Your task to perform on an android device: toggle notifications settings in the gmail app Image 0: 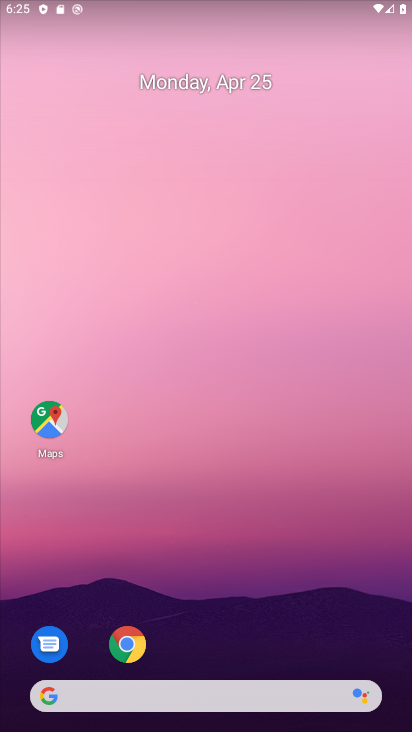
Step 0: drag from (198, 593) to (197, 41)
Your task to perform on an android device: toggle notifications settings in the gmail app Image 1: 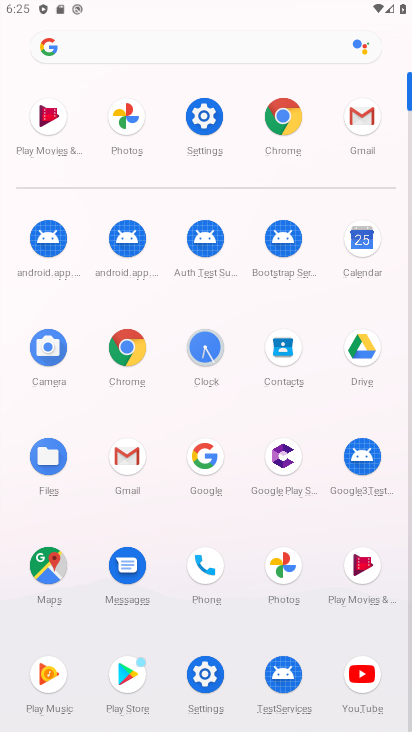
Step 1: click (202, 121)
Your task to perform on an android device: toggle notifications settings in the gmail app Image 2: 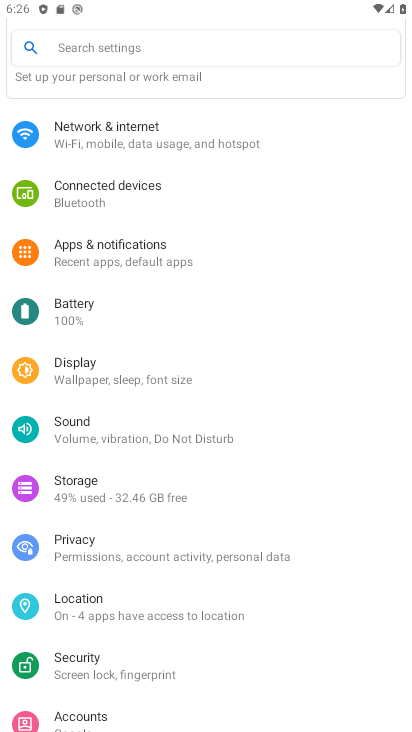
Step 2: press home button
Your task to perform on an android device: toggle notifications settings in the gmail app Image 3: 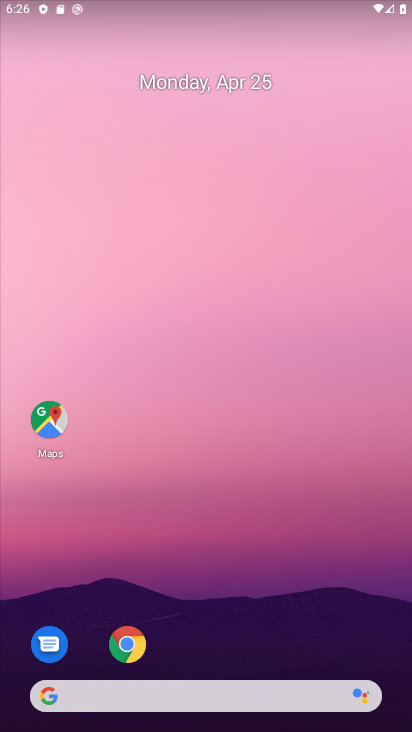
Step 3: drag from (257, 618) to (234, 98)
Your task to perform on an android device: toggle notifications settings in the gmail app Image 4: 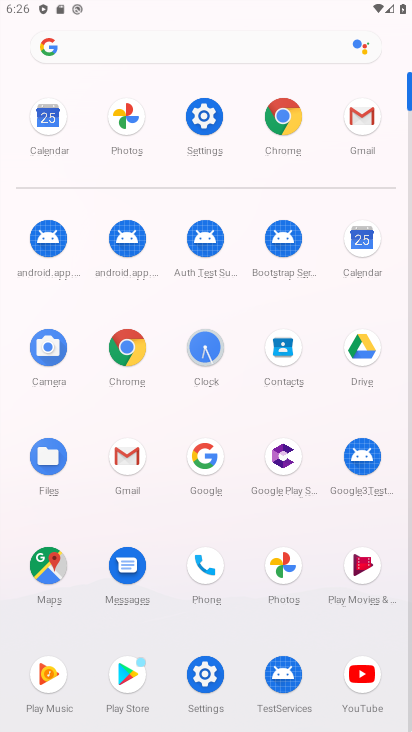
Step 4: click (127, 463)
Your task to perform on an android device: toggle notifications settings in the gmail app Image 5: 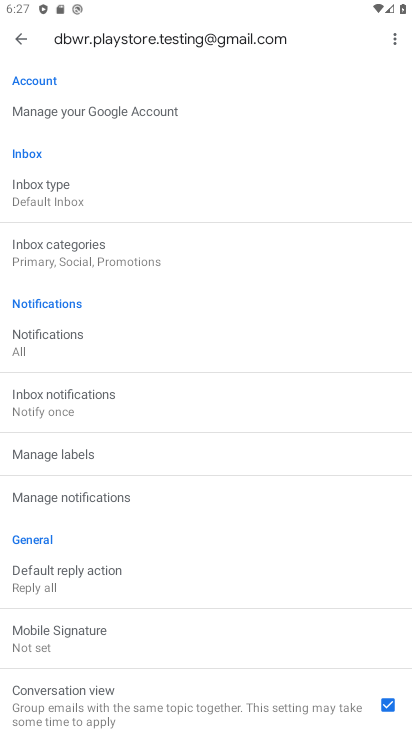
Step 5: click (65, 344)
Your task to perform on an android device: toggle notifications settings in the gmail app Image 6: 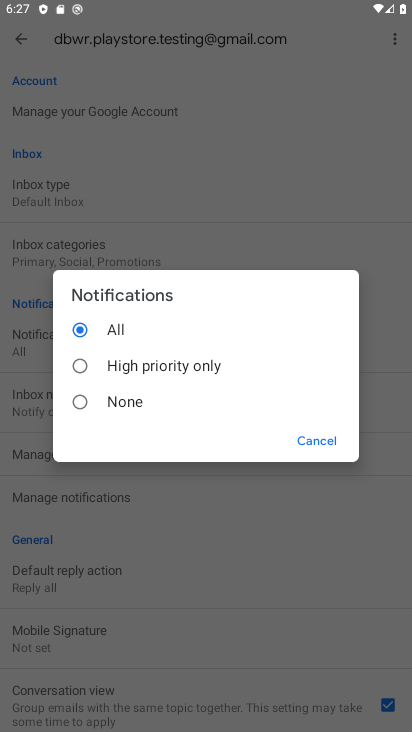
Step 6: click (82, 366)
Your task to perform on an android device: toggle notifications settings in the gmail app Image 7: 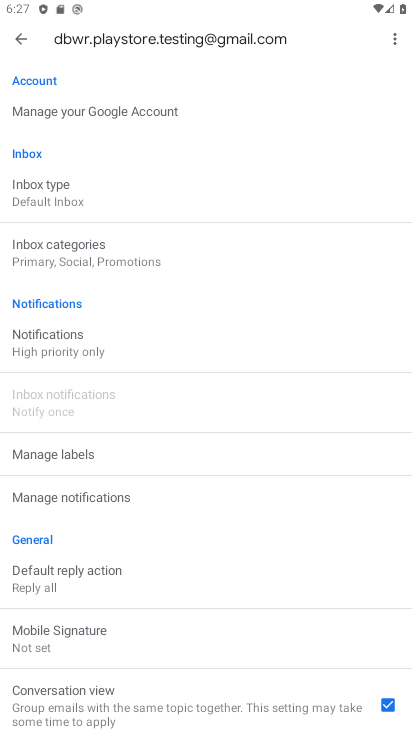
Step 7: task complete